Your task to perform on an android device: Open internet settings Image 0: 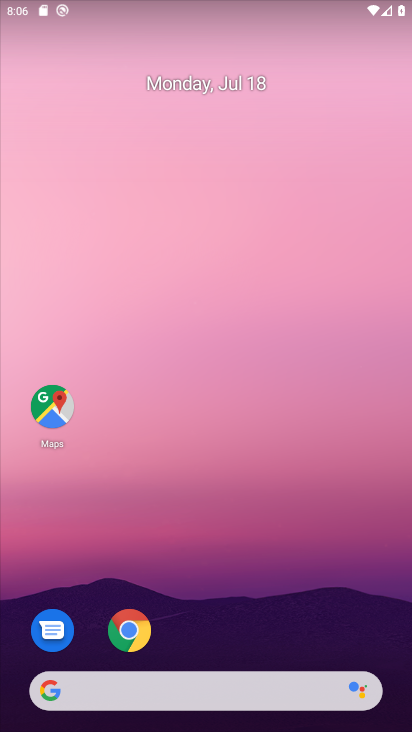
Step 0: drag from (205, 637) to (206, 185)
Your task to perform on an android device: Open internet settings Image 1: 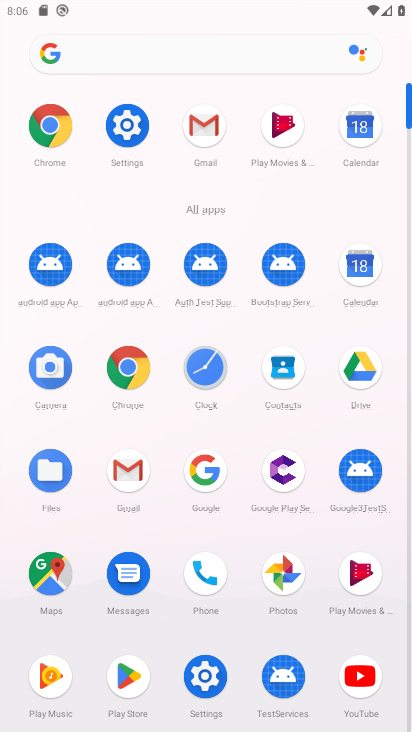
Step 1: click (135, 131)
Your task to perform on an android device: Open internet settings Image 2: 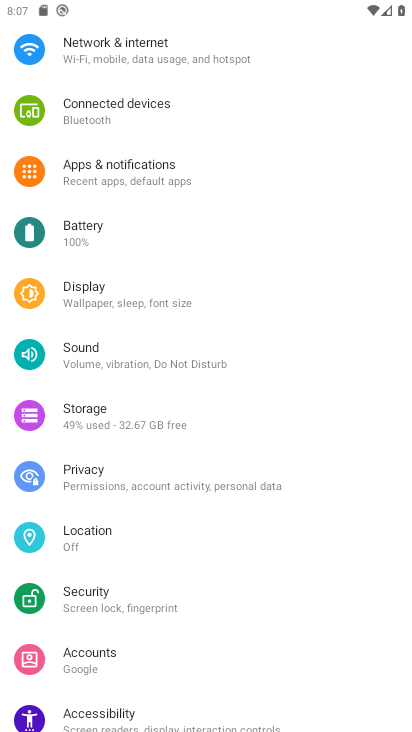
Step 2: click (121, 60)
Your task to perform on an android device: Open internet settings Image 3: 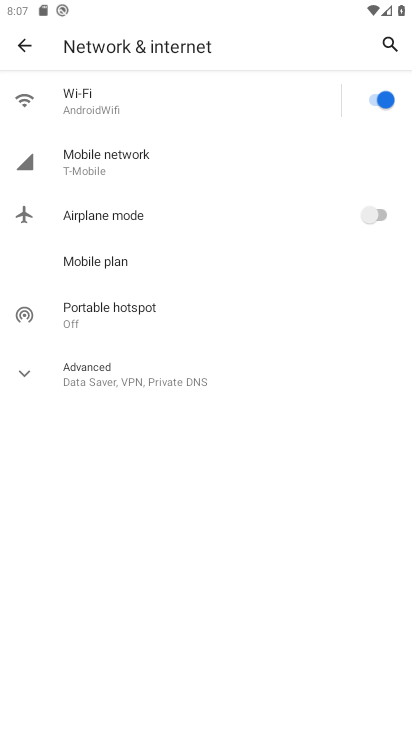
Step 3: task complete